Your task to perform on an android device: Open maps Image 0: 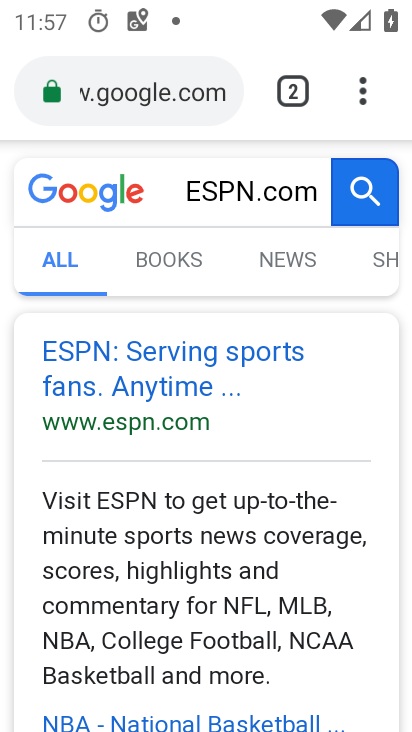
Step 0: press home button
Your task to perform on an android device: Open maps Image 1: 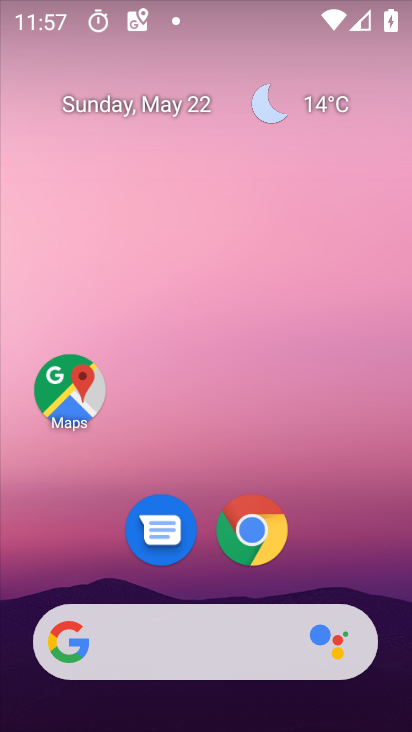
Step 1: click (72, 382)
Your task to perform on an android device: Open maps Image 2: 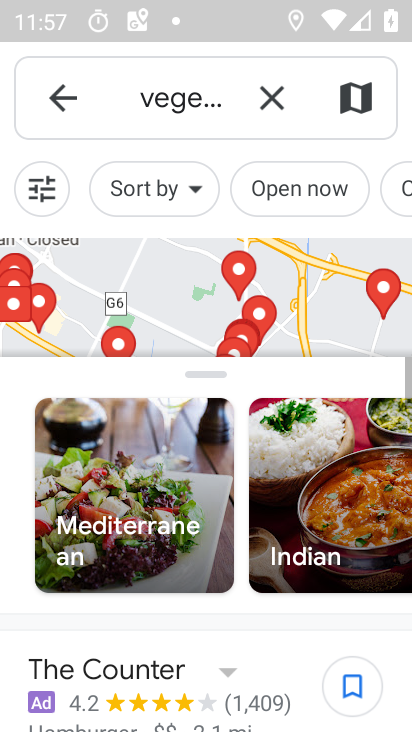
Step 2: click (52, 101)
Your task to perform on an android device: Open maps Image 3: 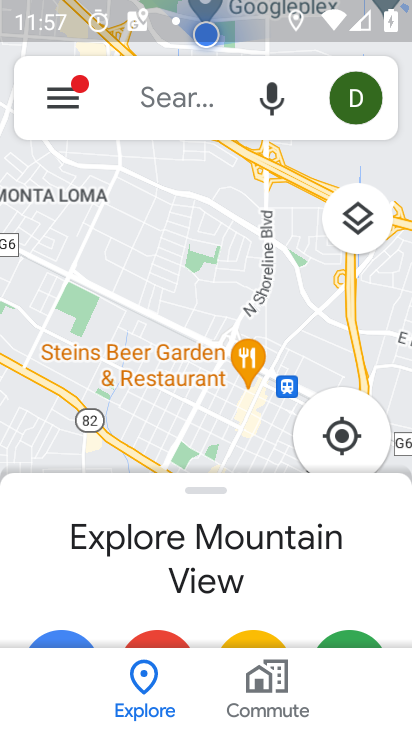
Step 3: task complete